Your task to perform on an android device: Go to Yahoo.com Image 0: 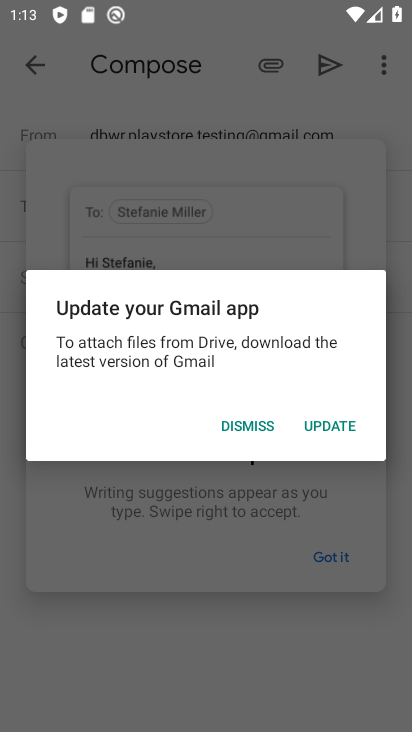
Step 0: press home button
Your task to perform on an android device: Go to Yahoo.com Image 1: 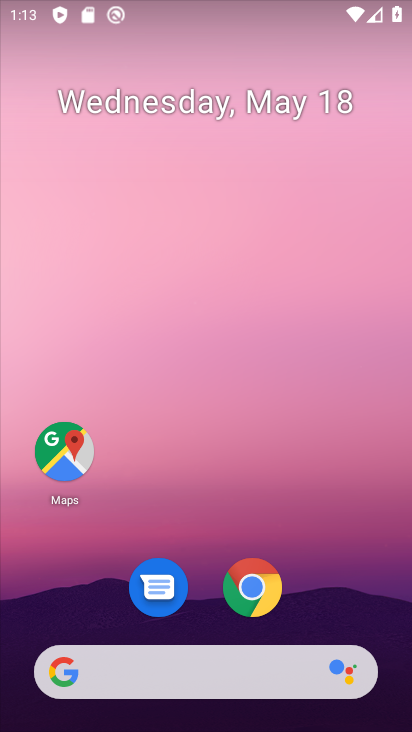
Step 1: click (266, 596)
Your task to perform on an android device: Go to Yahoo.com Image 2: 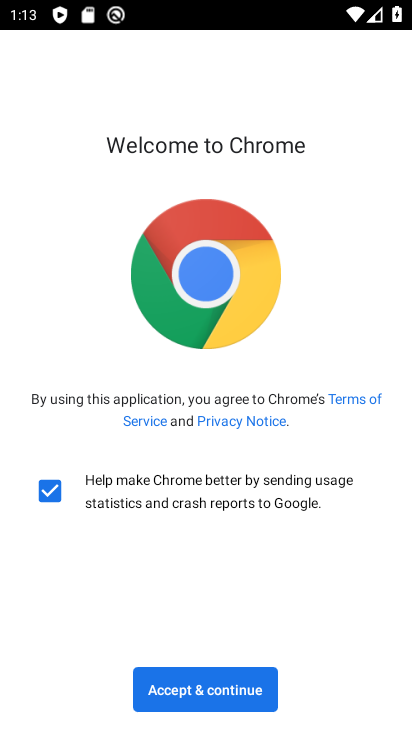
Step 2: click (196, 688)
Your task to perform on an android device: Go to Yahoo.com Image 3: 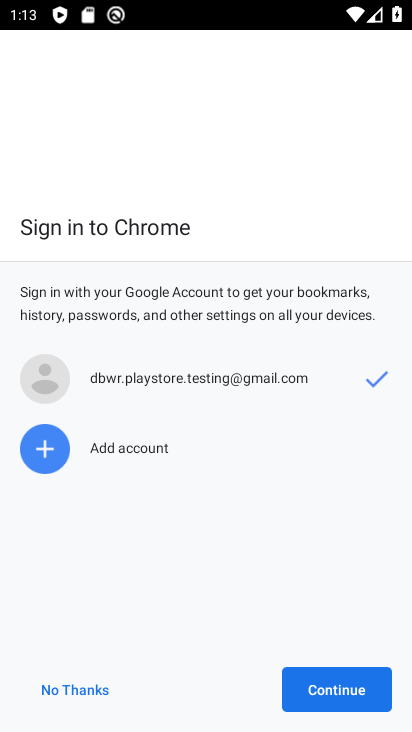
Step 3: click (303, 687)
Your task to perform on an android device: Go to Yahoo.com Image 4: 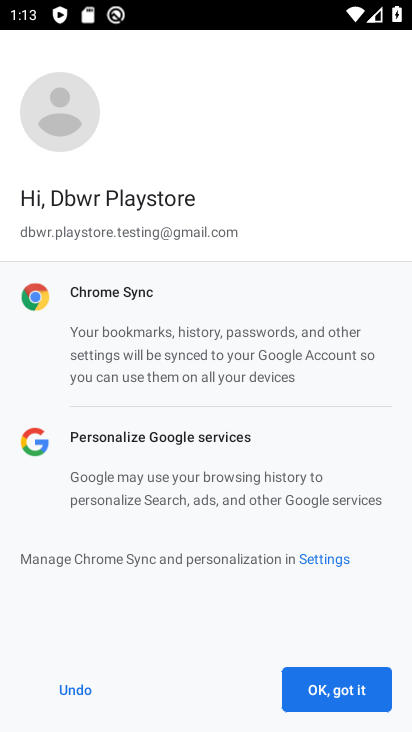
Step 4: click (326, 677)
Your task to perform on an android device: Go to Yahoo.com Image 5: 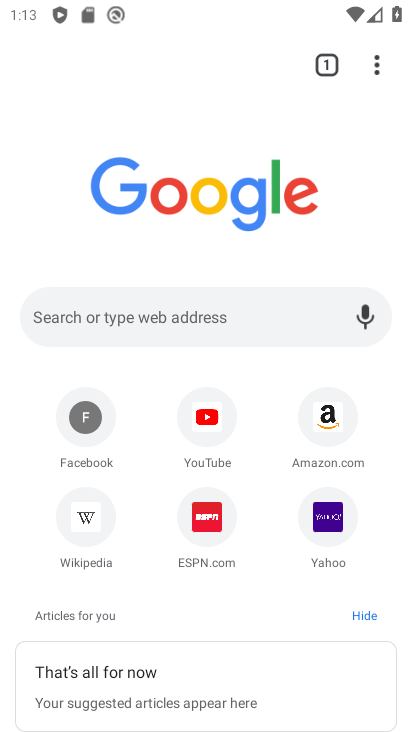
Step 5: click (141, 314)
Your task to perform on an android device: Go to Yahoo.com Image 6: 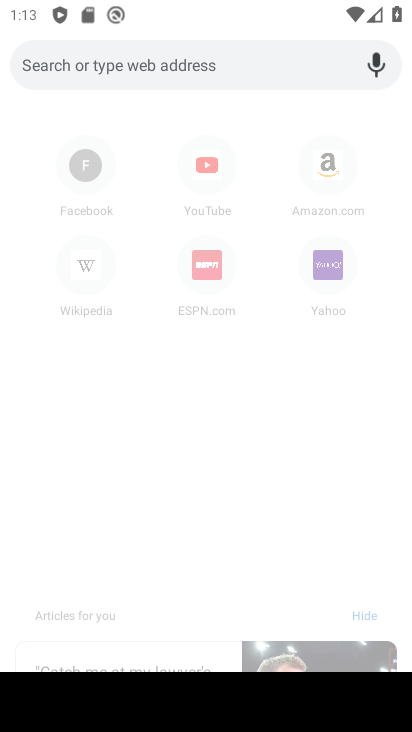
Step 6: type "Yahoo.com"
Your task to perform on an android device: Go to Yahoo.com Image 7: 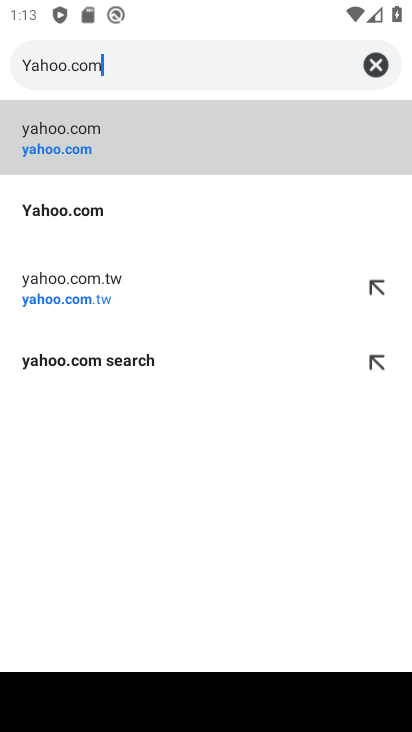
Step 7: click (66, 211)
Your task to perform on an android device: Go to Yahoo.com Image 8: 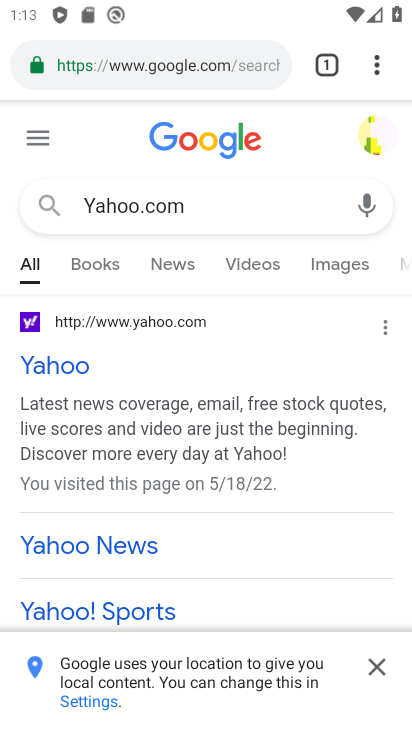
Step 8: task complete